Your task to perform on an android device: Open calendar and show me the third week of next month Image 0: 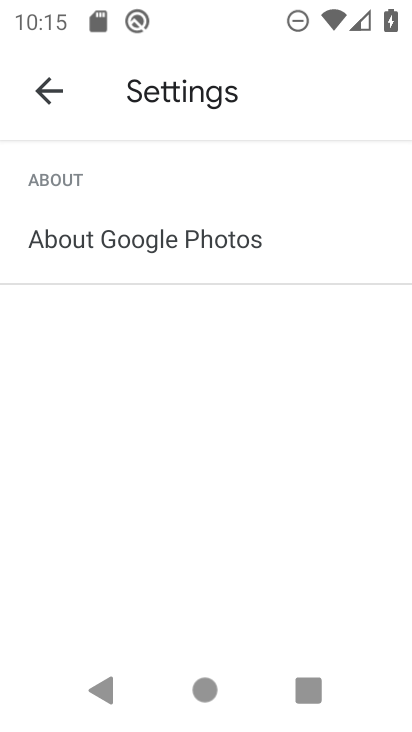
Step 0: press home button
Your task to perform on an android device: Open calendar and show me the third week of next month Image 1: 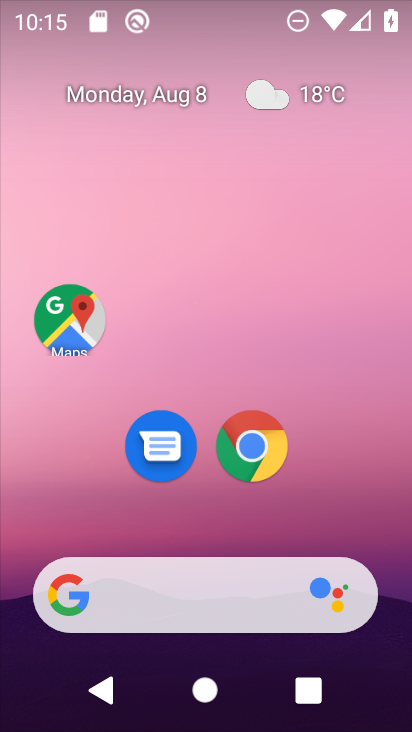
Step 1: drag from (398, 626) to (360, 163)
Your task to perform on an android device: Open calendar and show me the third week of next month Image 2: 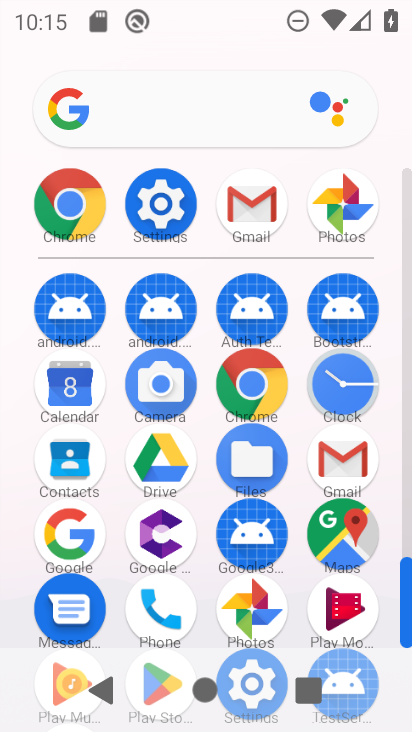
Step 2: click (66, 385)
Your task to perform on an android device: Open calendar and show me the third week of next month Image 3: 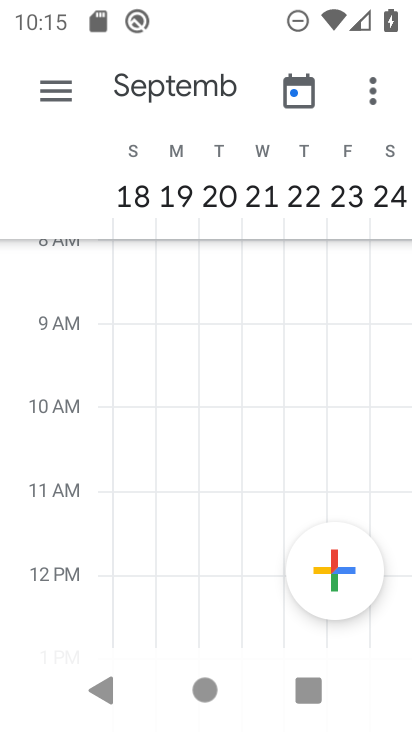
Step 3: click (218, 91)
Your task to perform on an android device: Open calendar and show me the third week of next month Image 4: 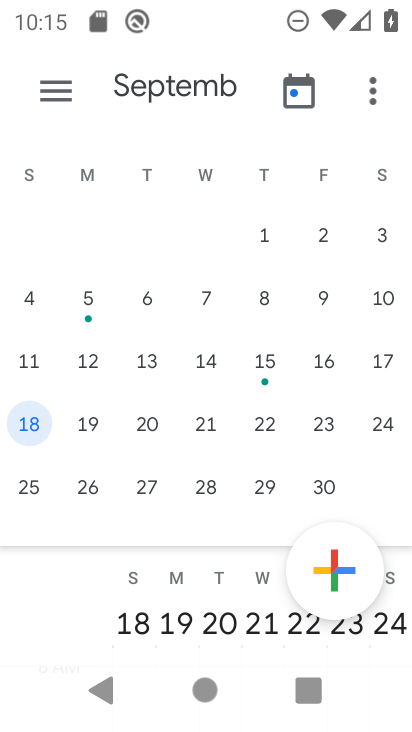
Step 4: task complete